Your task to perform on an android device: uninstall "Viber Messenger" Image 0: 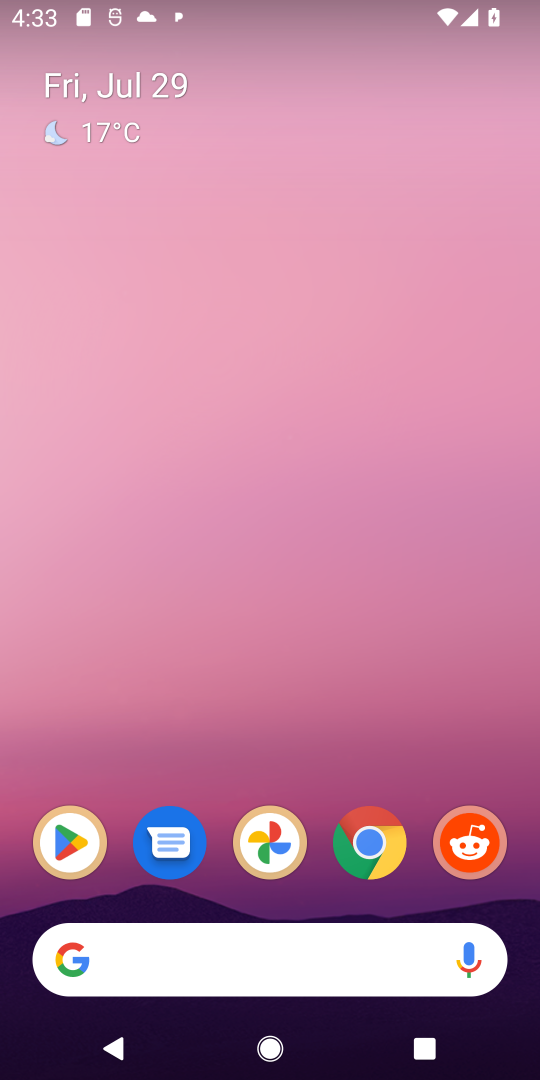
Step 0: click (60, 839)
Your task to perform on an android device: uninstall "Viber Messenger" Image 1: 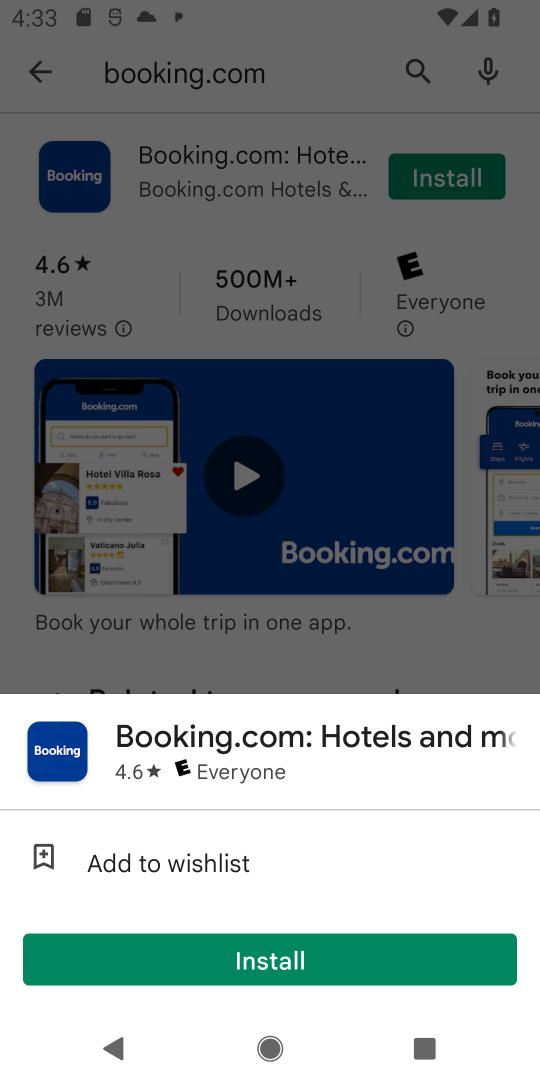
Step 1: click (420, 73)
Your task to perform on an android device: uninstall "Viber Messenger" Image 2: 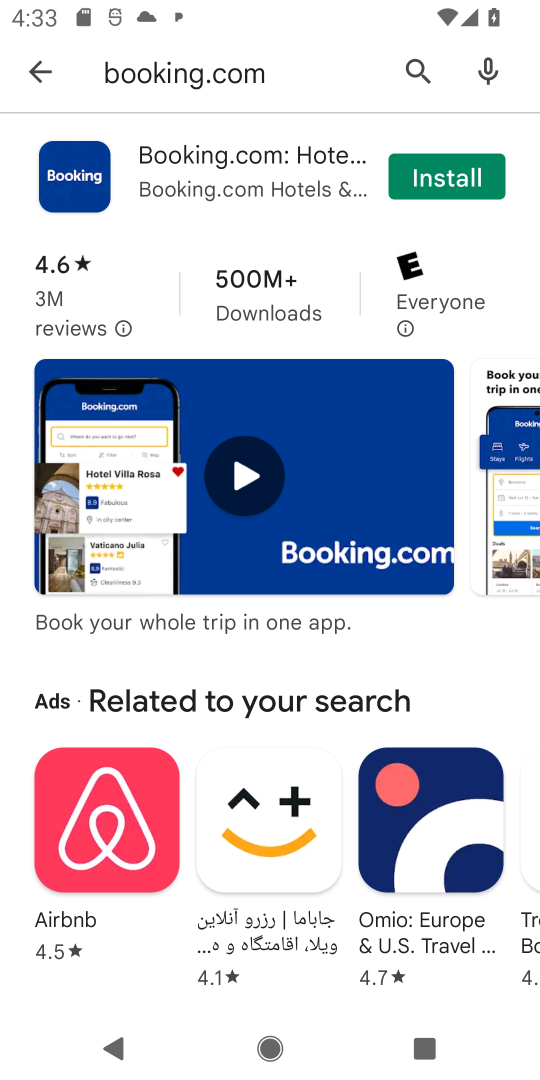
Step 2: click (419, 59)
Your task to perform on an android device: uninstall "Viber Messenger" Image 3: 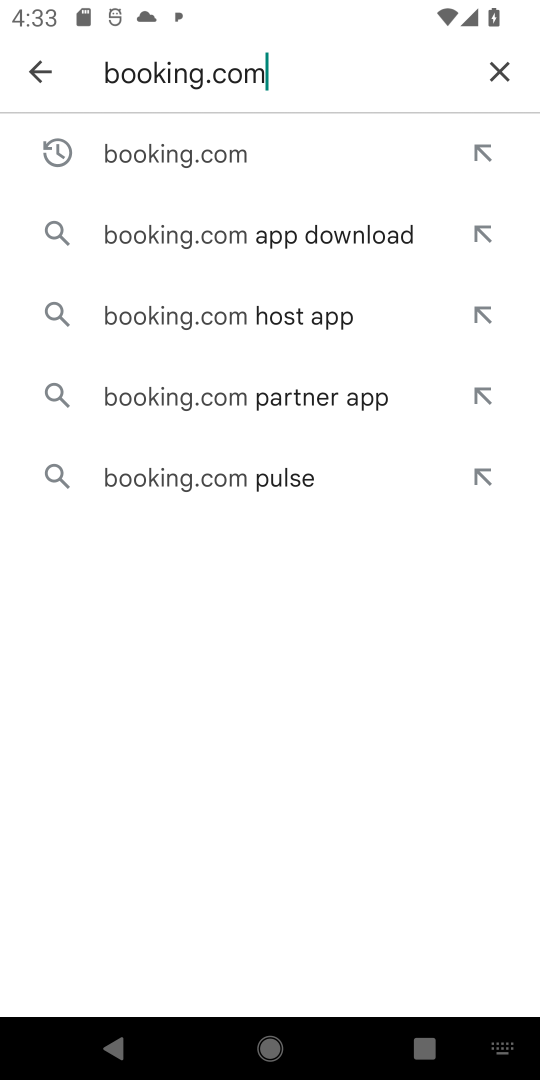
Step 3: click (504, 72)
Your task to perform on an android device: uninstall "Viber Messenger" Image 4: 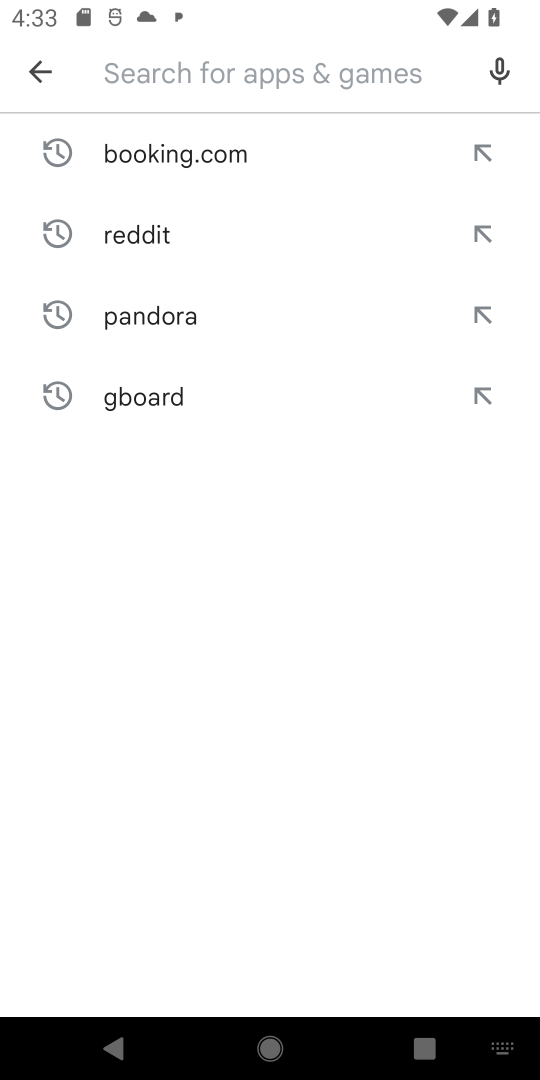
Step 4: click (265, 81)
Your task to perform on an android device: uninstall "Viber Messenger" Image 5: 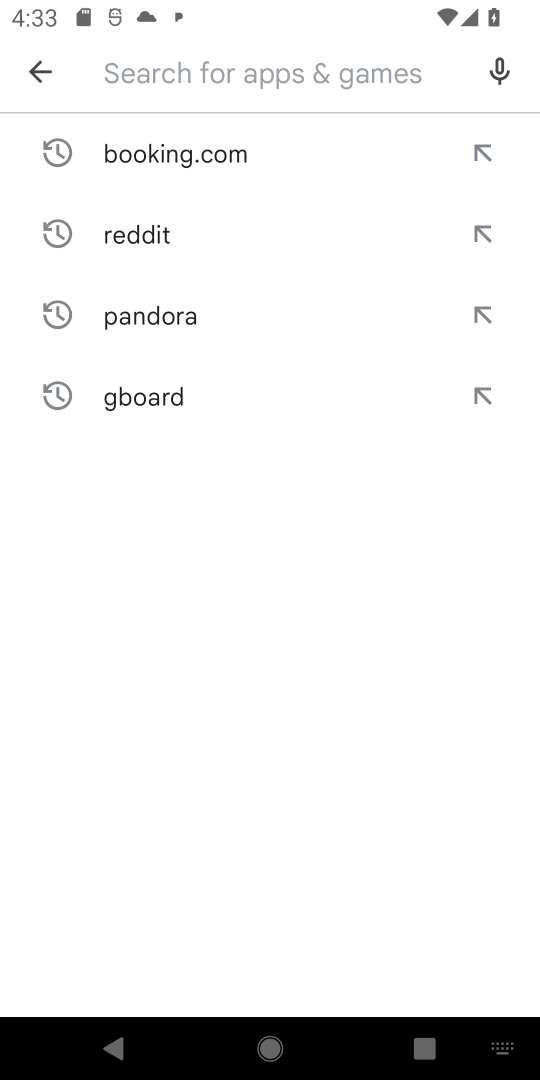
Step 5: type "viber "
Your task to perform on an android device: uninstall "Viber Messenger" Image 6: 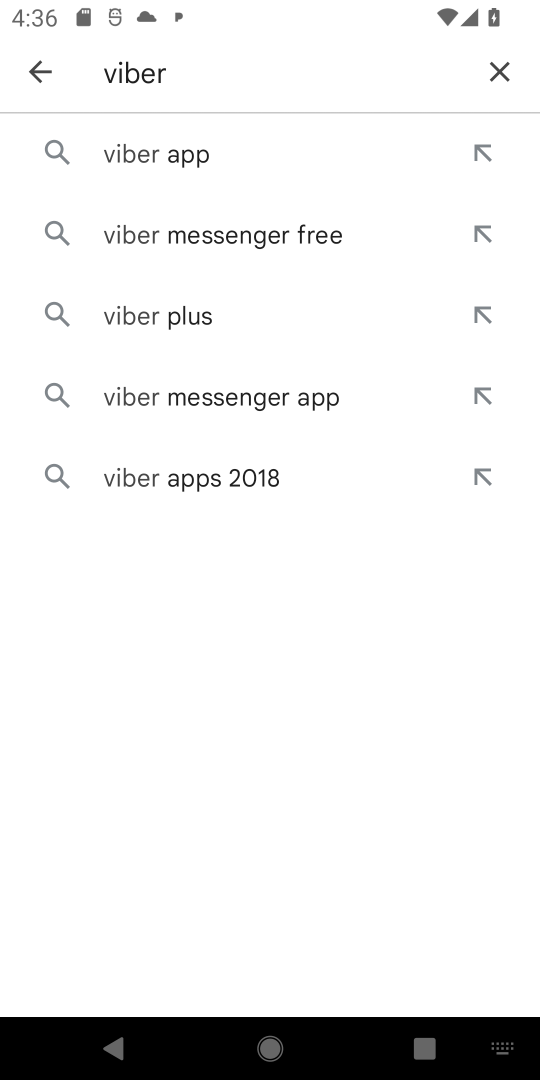
Step 6: click (228, 230)
Your task to perform on an android device: uninstall "Viber Messenger" Image 7: 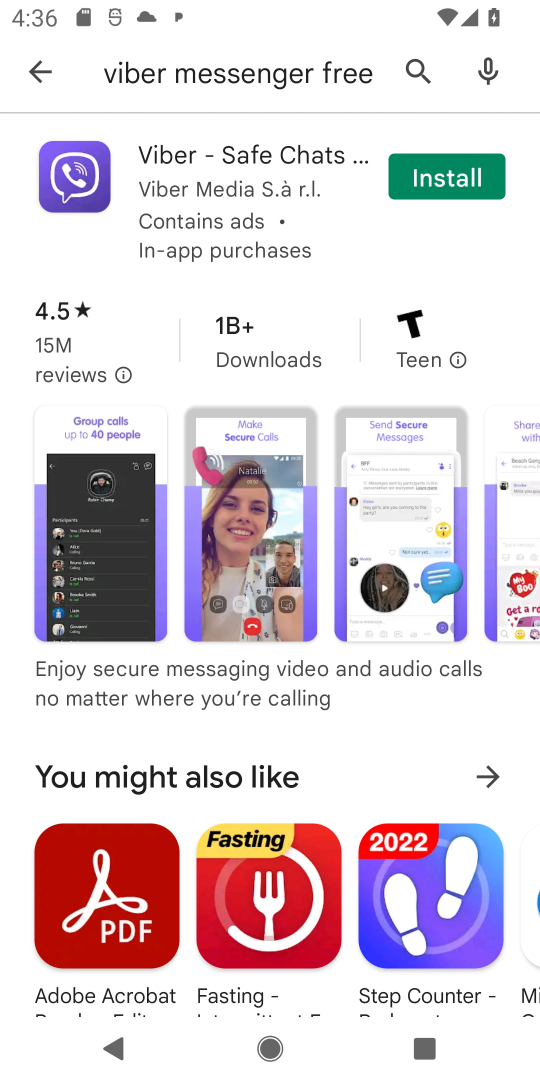
Step 7: click (224, 208)
Your task to perform on an android device: uninstall "Viber Messenger" Image 8: 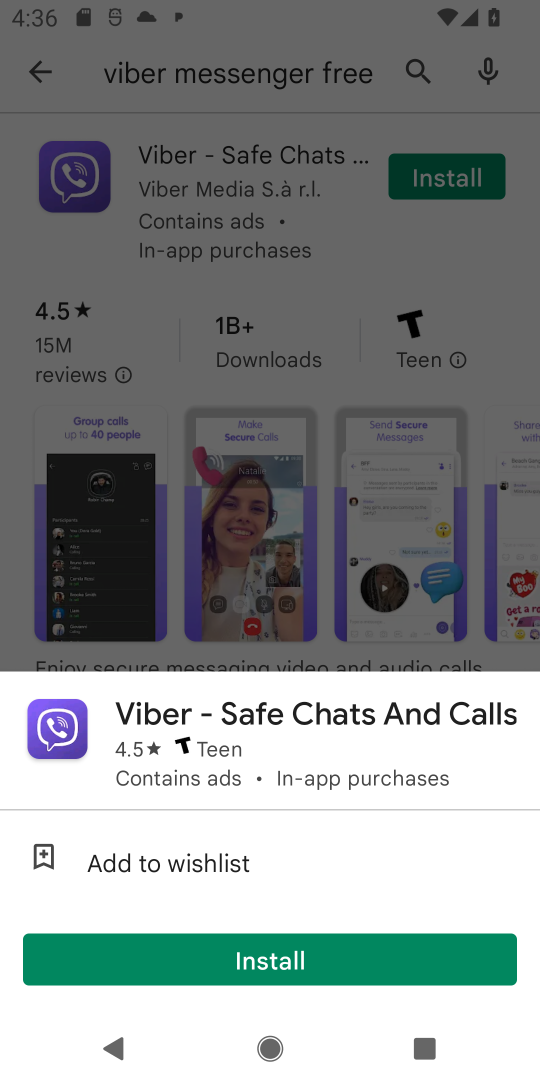
Step 8: task complete